Your task to perform on an android device: Turn on the flashlight Image 0: 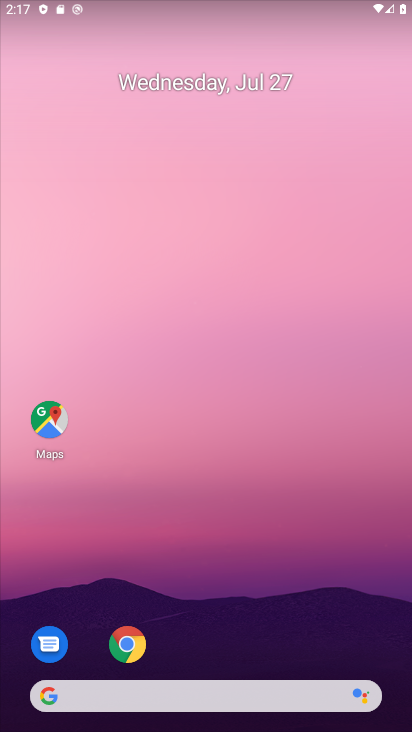
Step 0: drag from (224, 5) to (212, 483)
Your task to perform on an android device: Turn on the flashlight Image 1: 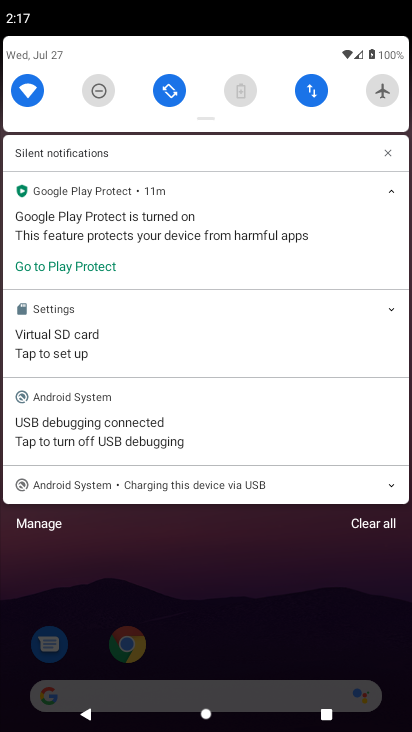
Step 1: drag from (213, 101) to (191, 525)
Your task to perform on an android device: Turn on the flashlight Image 2: 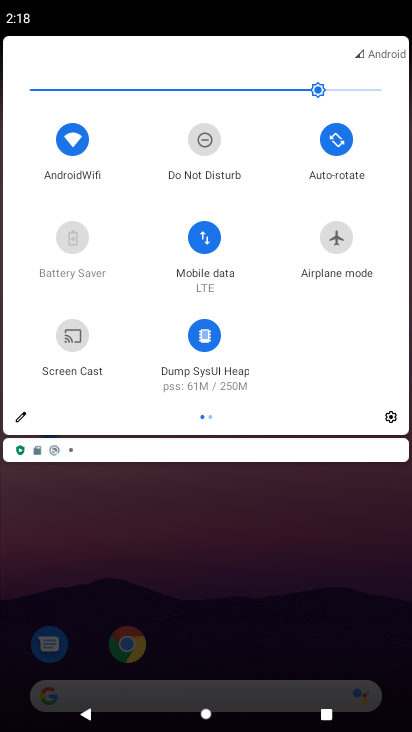
Step 2: click (15, 416)
Your task to perform on an android device: Turn on the flashlight Image 3: 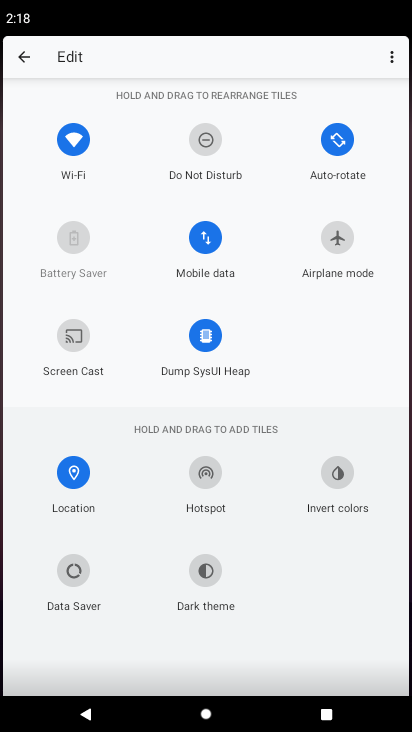
Step 3: task complete